Your task to perform on an android device: Go to Yahoo.com Image 0: 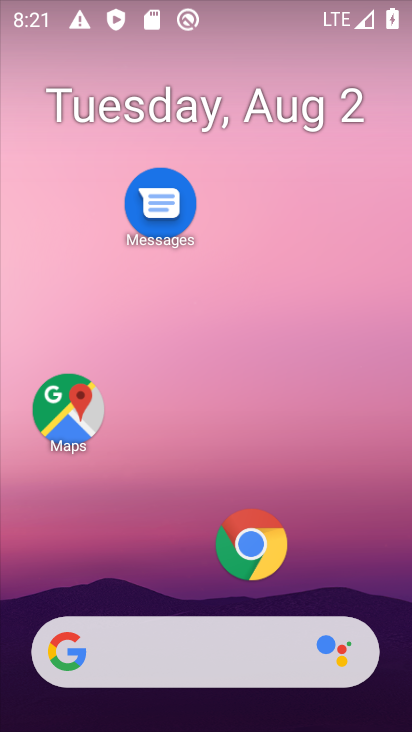
Step 0: drag from (185, 508) to (208, 372)
Your task to perform on an android device: Go to Yahoo.com Image 1: 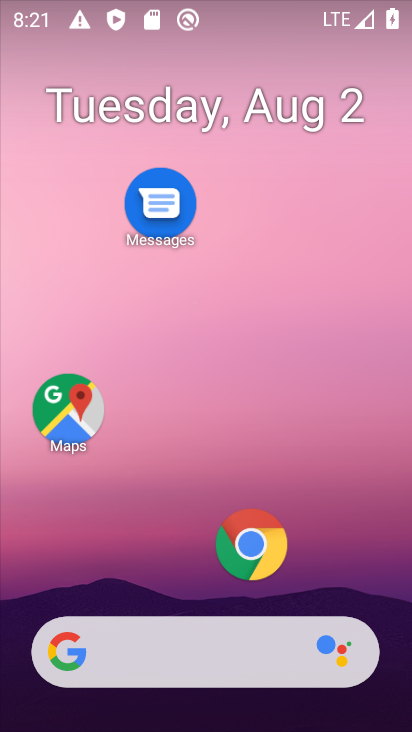
Step 1: click (270, 533)
Your task to perform on an android device: Go to Yahoo.com Image 2: 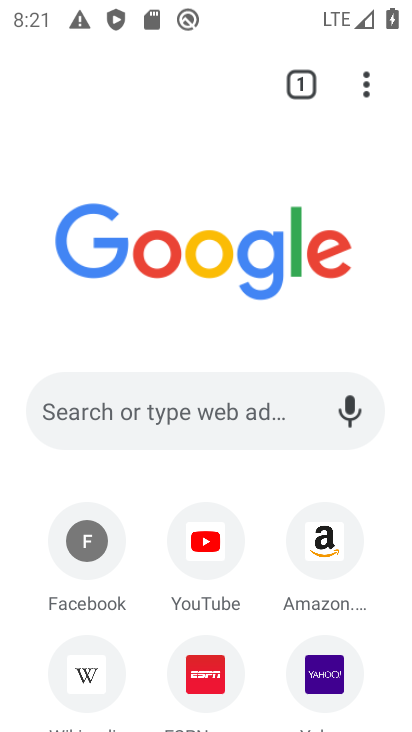
Step 2: click (307, 668)
Your task to perform on an android device: Go to Yahoo.com Image 3: 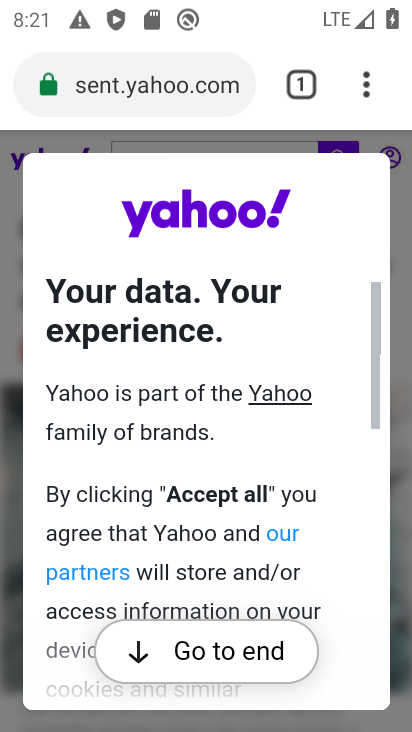
Step 3: task complete